Your task to perform on an android device: Open calendar and show me the fourth week of next month Image 0: 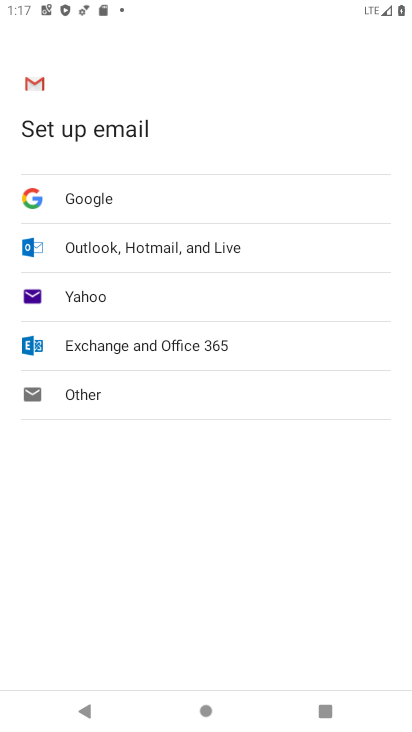
Step 0: press home button
Your task to perform on an android device: Open calendar and show me the fourth week of next month Image 1: 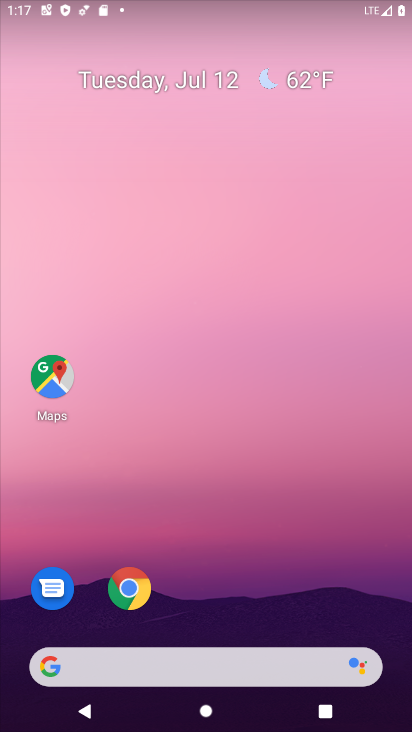
Step 1: drag from (160, 701) to (238, 15)
Your task to perform on an android device: Open calendar and show me the fourth week of next month Image 2: 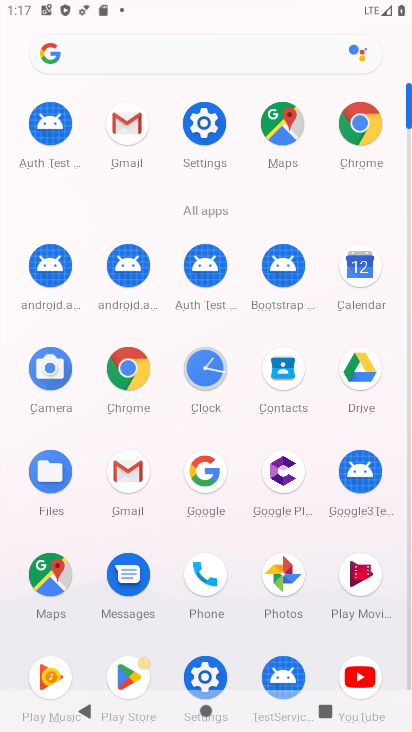
Step 2: click (368, 279)
Your task to perform on an android device: Open calendar and show me the fourth week of next month Image 3: 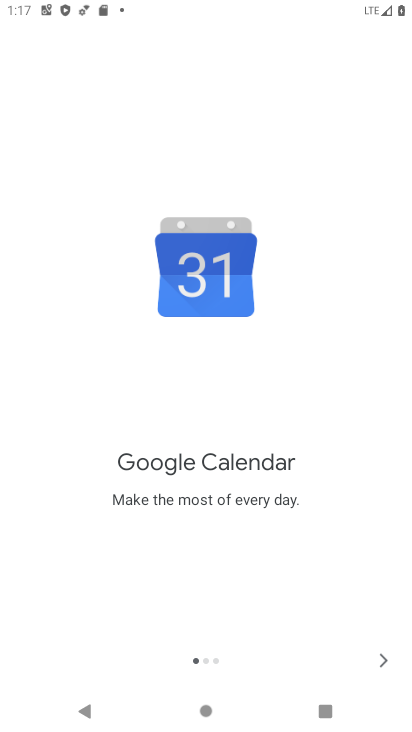
Step 3: click (378, 652)
Your task to perform on an android device: Open calendar and show me the fourth week of next month Image 4: 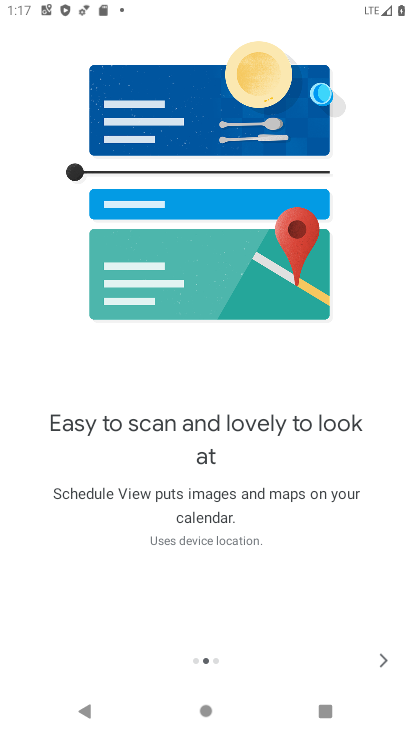
Step 4: click (378, 652)
Your task to perform on an android device: Open calendar and show me the fourth week of next month Image 5: 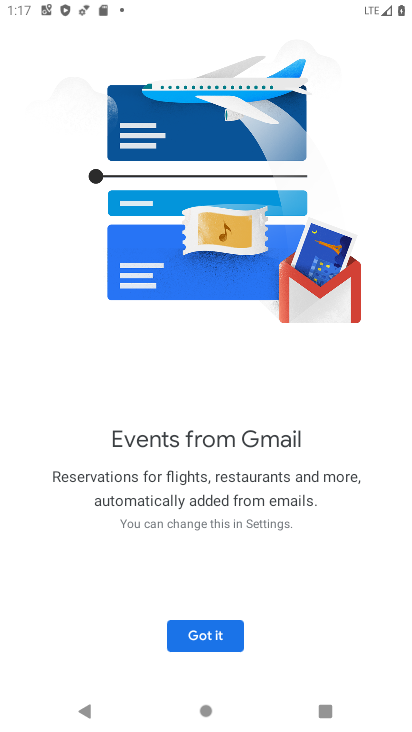
Step 5: click (231, 632)
Your task to perform on an android device: Open calendar and show me the fourth week of next month Image 6: 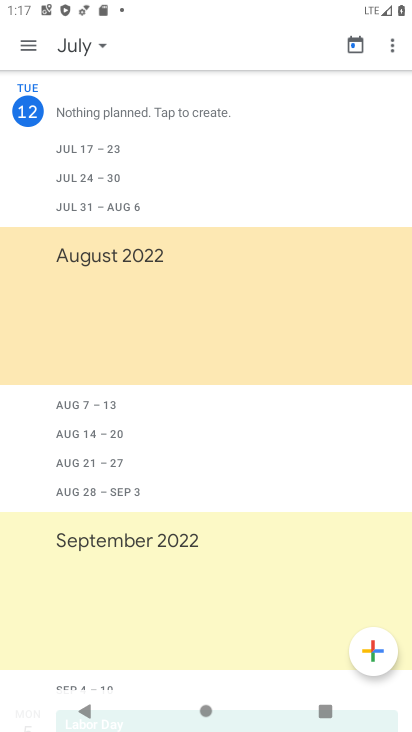
Step 6: click (64, 39)
Your task to perform on an android device: Open calendar and show me the fourth week of next month Image 7: 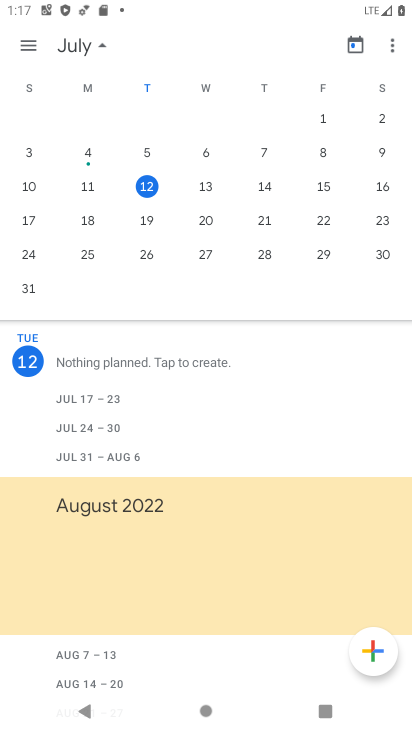
Step 7: drag from (349, 191) to (9, 182)
Your task to perform on an android device: Open calendar and show me the fourth week of next month Image 8: 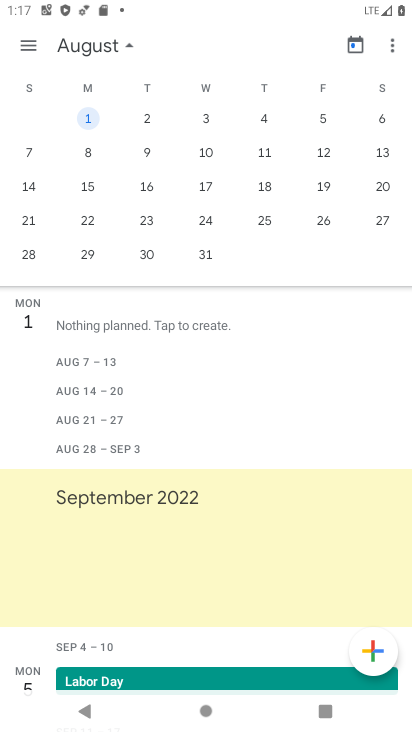
Step 8: click (30, 221)
Your task to perform on an android device: Open calendar and show me the fourth week of next month Image 9: 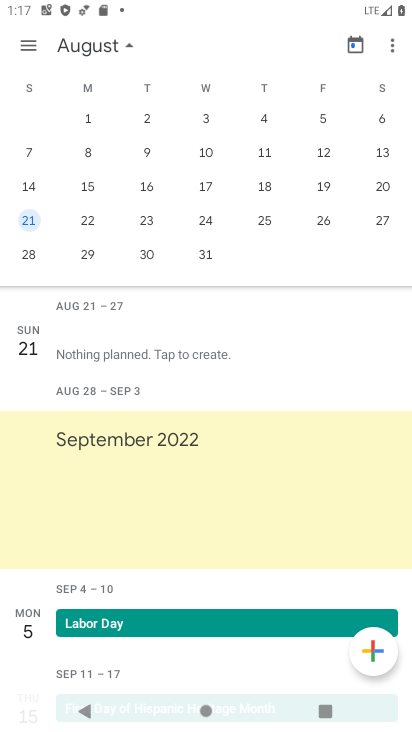
Step 9: task complete